Your task to perform on an android device: Go to notification settings Image 0: 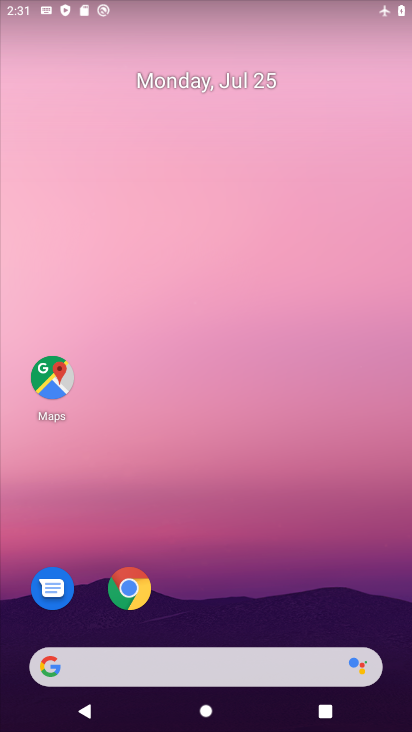
Step 0: drag from (361, 589) to (242, 22)
Your task to perform on an android device: Go to notification settings Image 1: 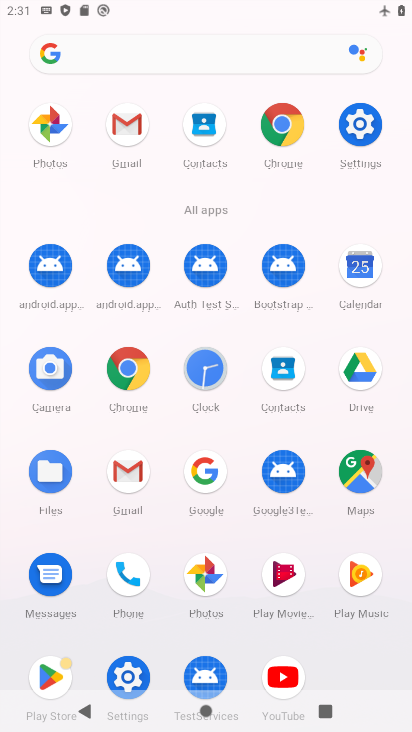
Step 1: click (361, 126)
Your task to perform on an android device: Go to notification settings Image 2: 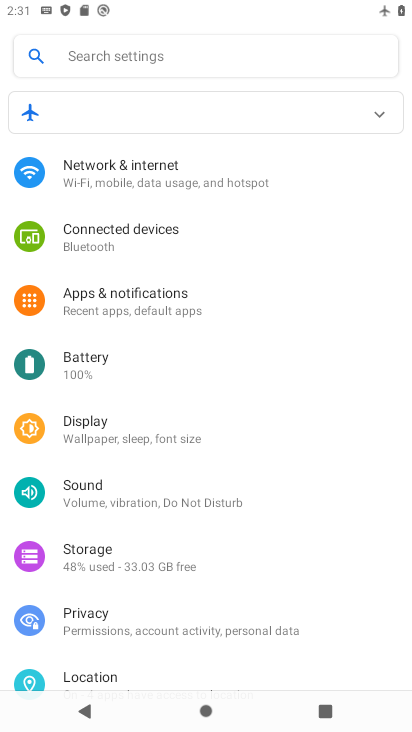
Step 2: click (135, 310)
Your task to perform on an android device: Go to notification settings Image 3: 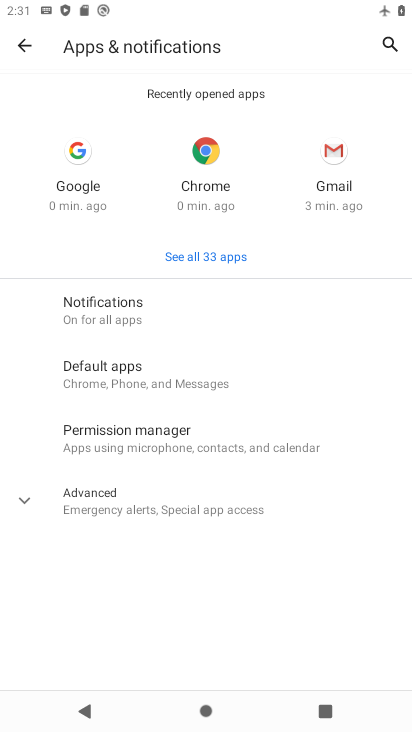
Step 3: click (142, 309)
Your task to perform on an android device: Go to notification settings Image 4: 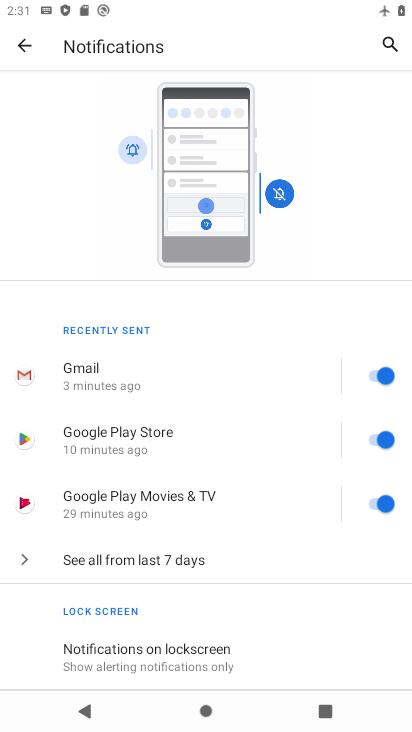
Step 4: task complete